Your task to perform on an android device: Clear all items from cart on bestbuy. Add "apple airpods" to the cart on bestbuy, then select checkout. Image 0: 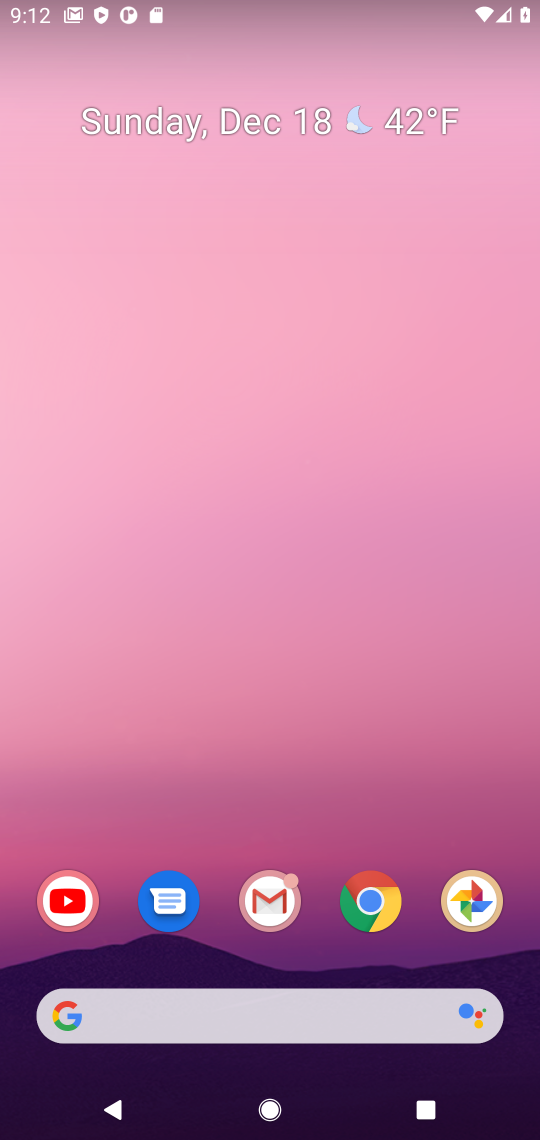
Step 0: click (357, 889)
Your task to perform on an android device: Clear all items from cart on bestbuy. Add "apple airpods" to the cart on bestbuy, then select checkout. Image 1: 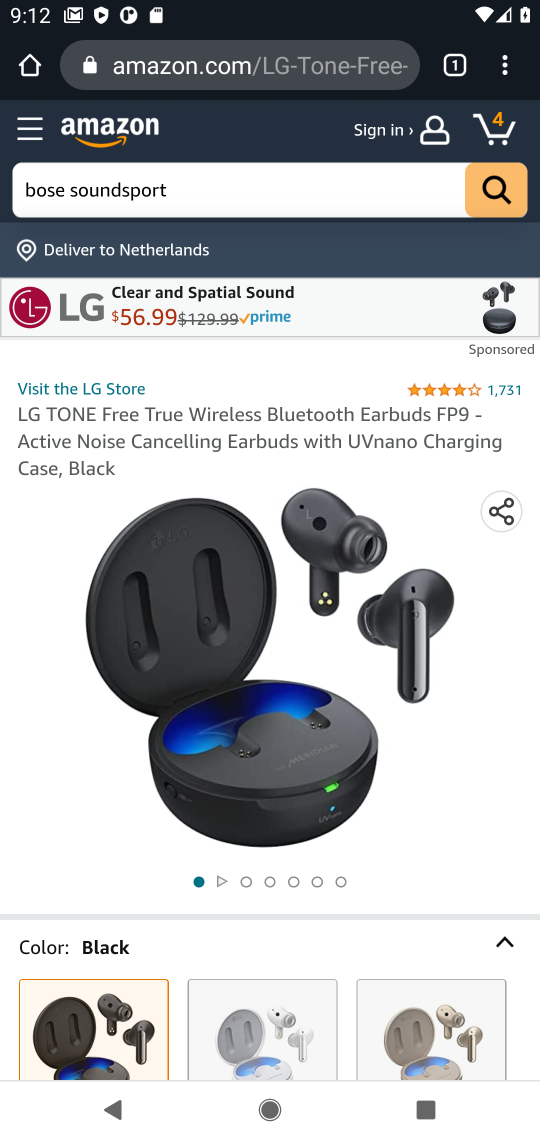
Step 1: task complete